Your task to perform on an android device: Go to internet settings Image 0: 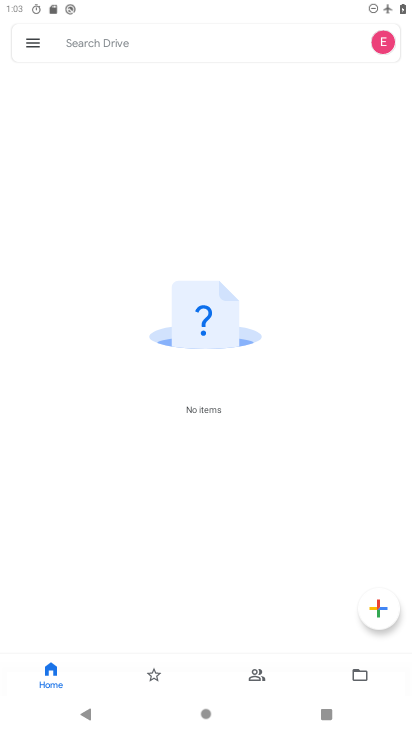
Step 0: press home button
Your task to perform on an android device: Go to internet settings Image 1: 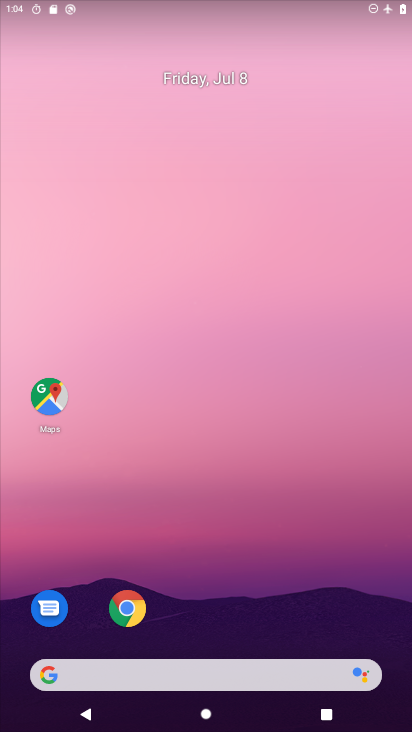
Step 1: drag from (224, 721) to (266, 89)
Your task to perform on an android device: Go to internet settings Image 2: 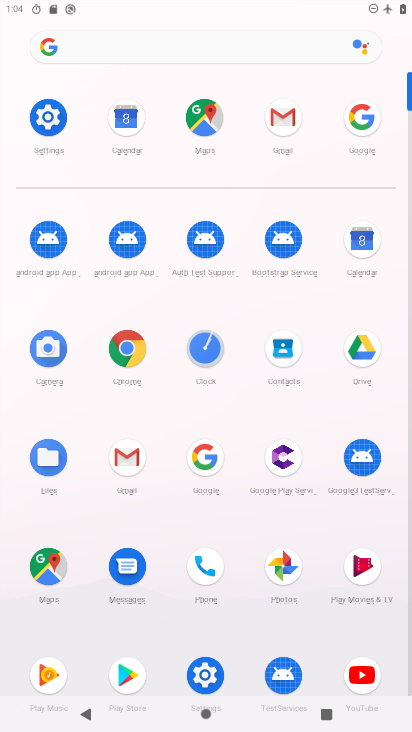
Step 2: click (53, 117)
Your task to perform on an android device: Go to internet settings Image 3: 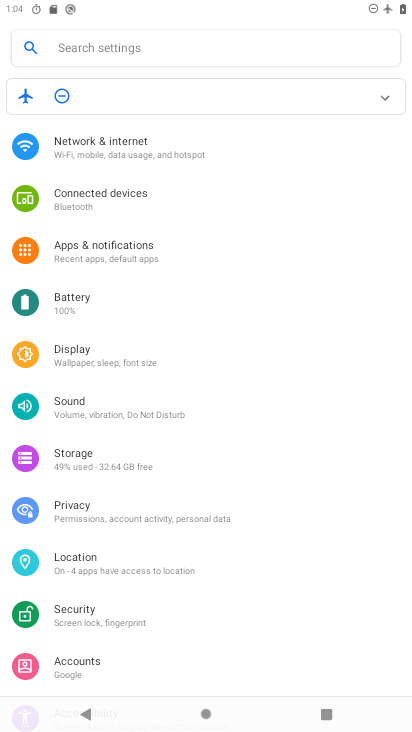
Step 3: click (79, 148)
Your task to perform on an android device: Go to internet settings Image 4: 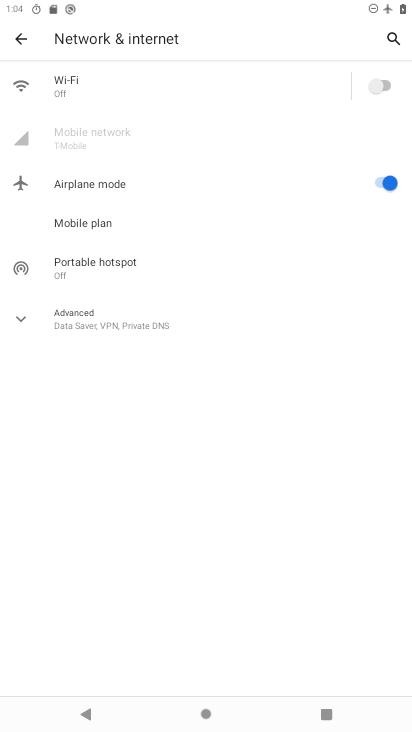
Step 4: task complete